Your task to perform on an android device: See recent photos Image 0: 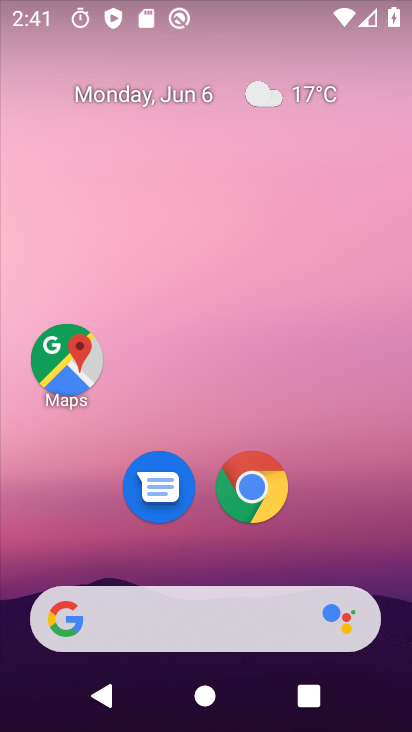
Step 0: drag from (85, 599) to (164, 116)
Your task to perform on an android device: See recent photos Image 1: 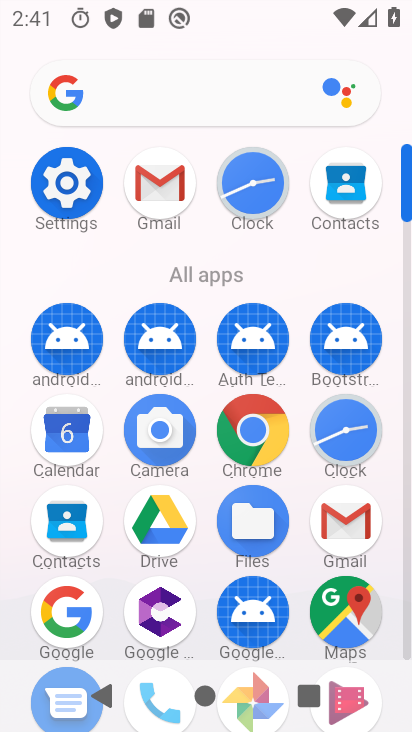
Step 1: drag from (216, 453) to (264, 316)
Your task to perform on an android device: See recent photos Image 2: 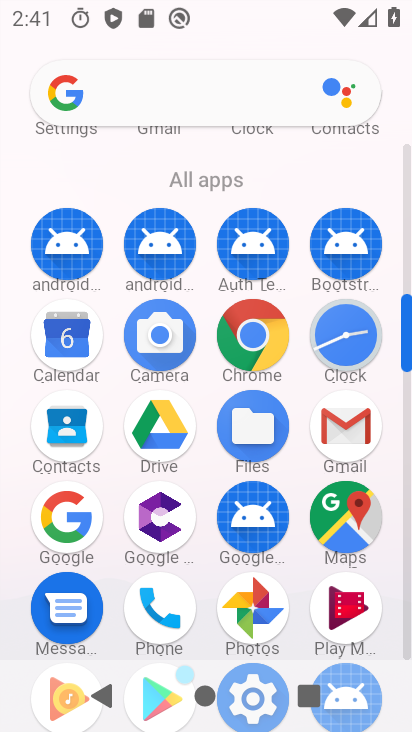
Step 2: click (251, 593)
Your task to perform on an android device: See recent photos Image 3: 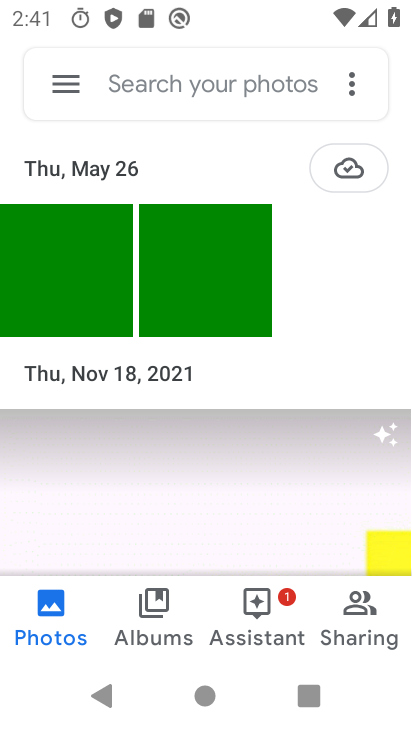
Step 3: task complete